Your task to perform on an android device: What's the weather going to be tomorrow? Image 0: 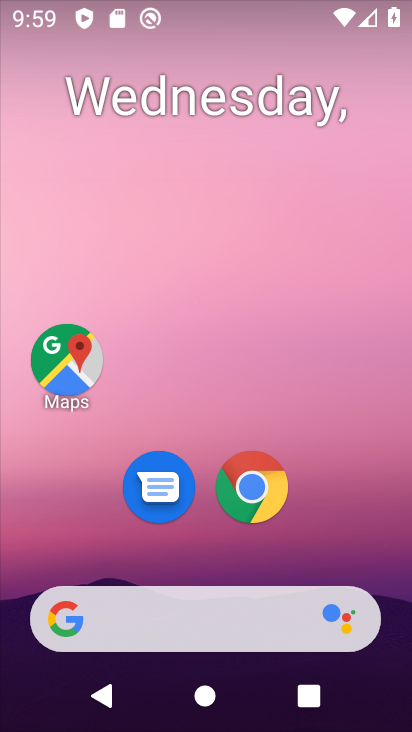
Step 0: click (135, 631)
Your task to perform on an android device: What's the weather going to be tomorrow? Image 1: 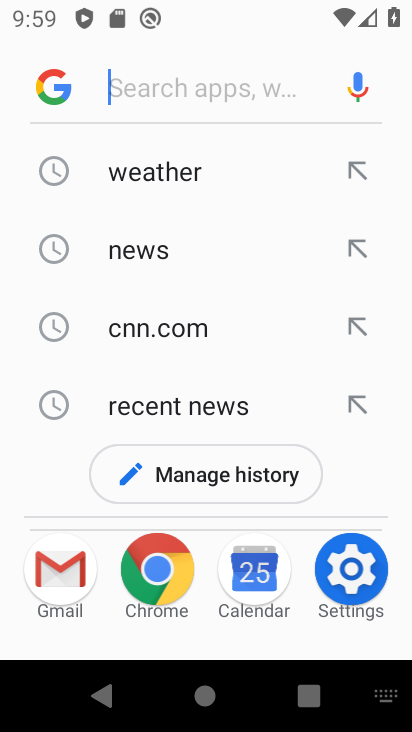
Step 1: type "What's the weather going to be tomorrow?"
Your task to perform on an android device: What's the weather going to be tomorrow? Image 2: 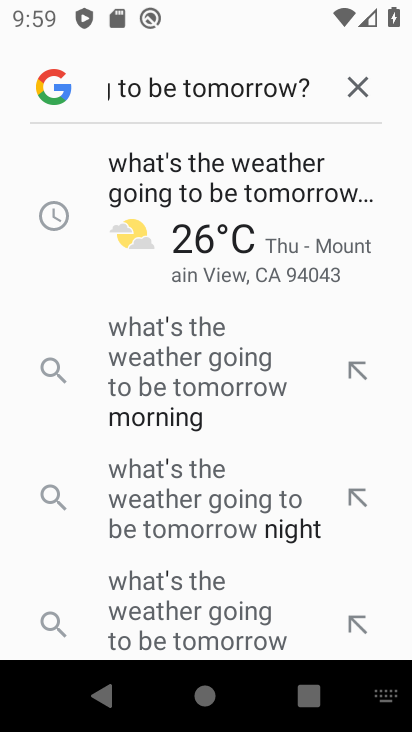
Step 2: click (281, 193)
Your task to perform on an android device: What's the weather going to be tomorrow? Image 3: 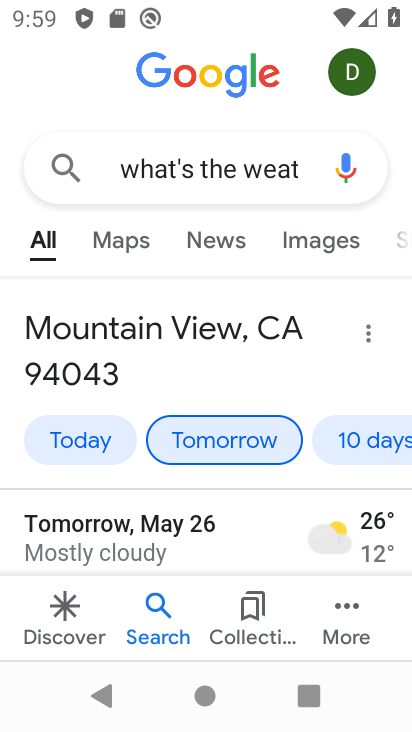
Step 3: task complete